Your task to perform on an android device: check battery use Image 0: 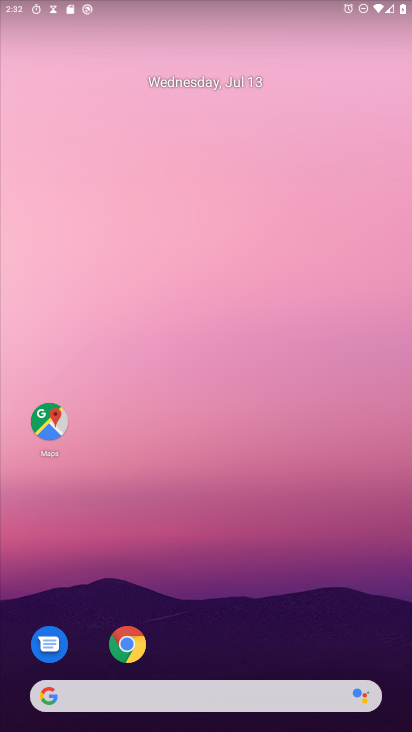
Step 0: press home button
Your task to perform on an android device: check battery use Image 1: 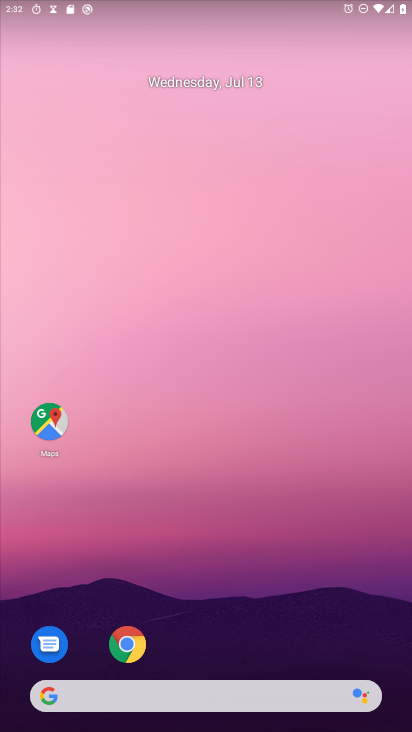
Step 1: drag from (223, 633) to (376, 1)
Your task to perform on an android device: check battery use Image 2: 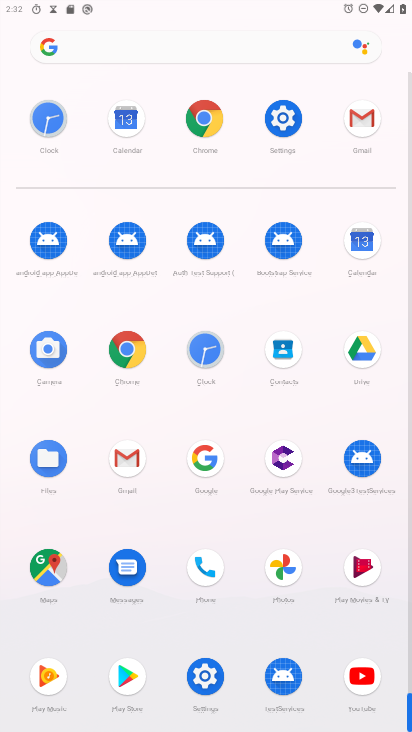
Step 2: click (287, 123)
Your task to perform on an android device: check battery use Image 3: 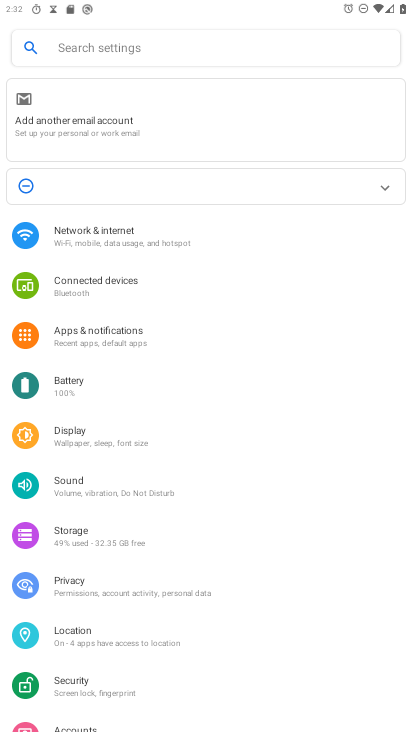
Step 3: click (65, 385)
Your task to perform on an android device: check battery use Image 4: 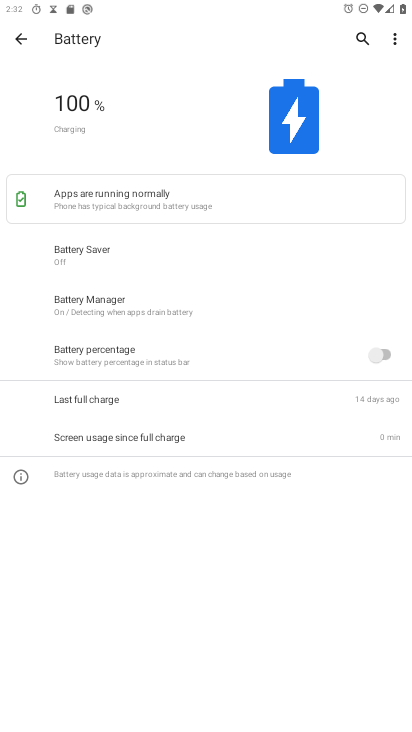
Step 4: task complete